Your task to perform on an android device: Go to sound settings Image 0: 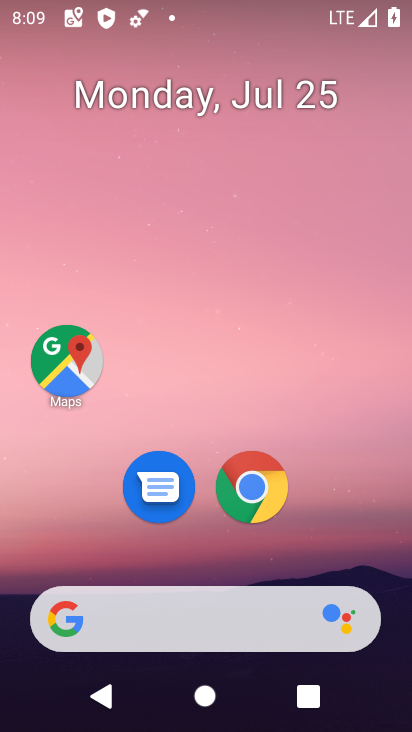
Step 0: drag from (177, 570) to (303, 27)
Your task to perform on an android device: Go to sound settings Image 1: 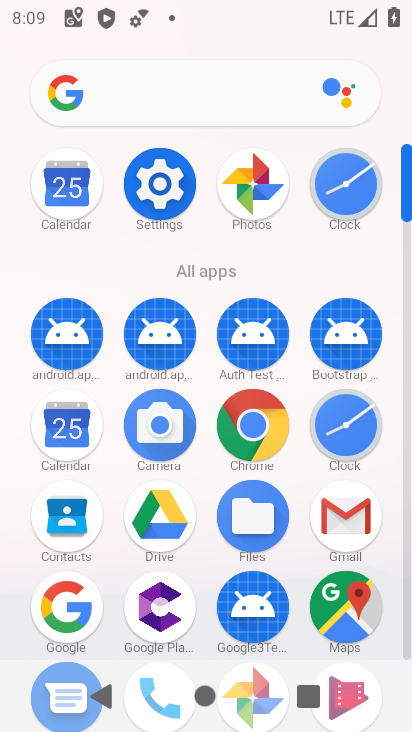
Step 1: click (166, 184)
Your task to perform on an android device: Go to sound settings Image 2: 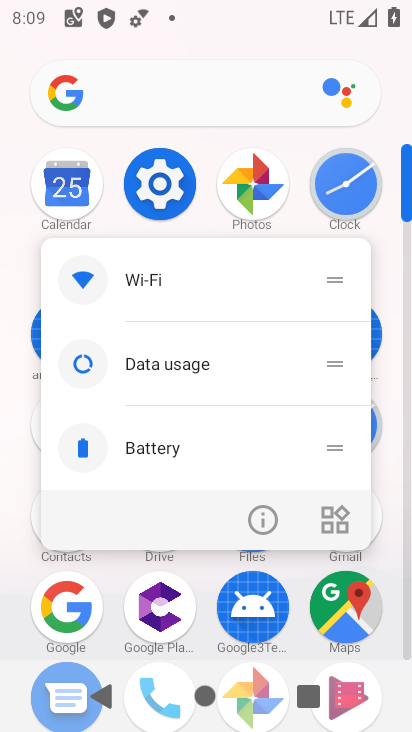
Step 2: click (163, 174)
Your task to perform on an android device: Go to sound settings Image 3: 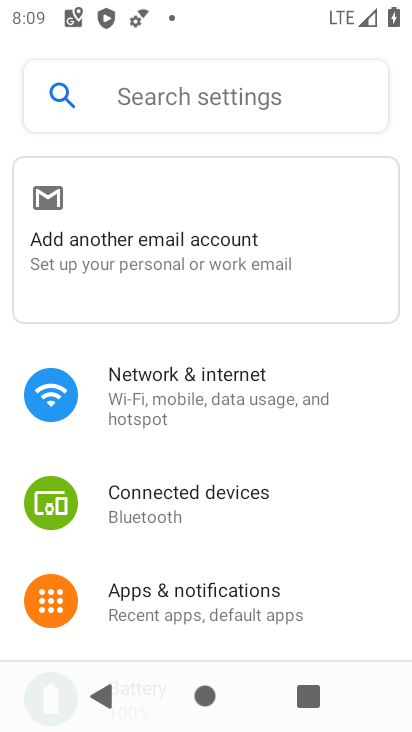
Step 3: drag from (190, 595) to (322, 60)
Your task to perform on an android device: Go to sound settings Image 4: 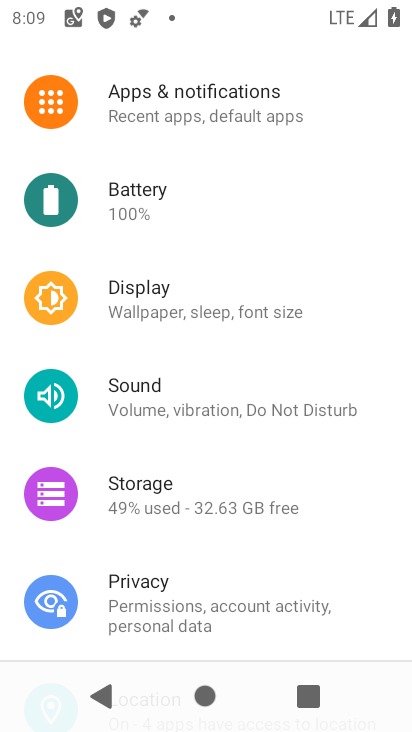
Step 4: click (145, 392)
Your task to perform on an android device: Go to sound settings Image 5: 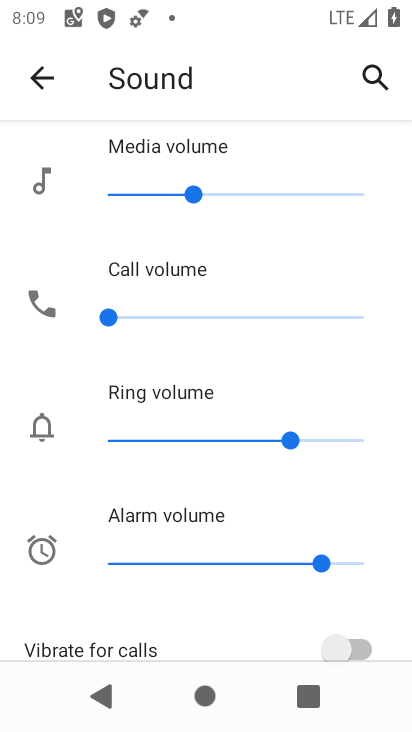
Step 5: task complete